Your task to perform on an android device: snooze an email in the gmail app Image 0: 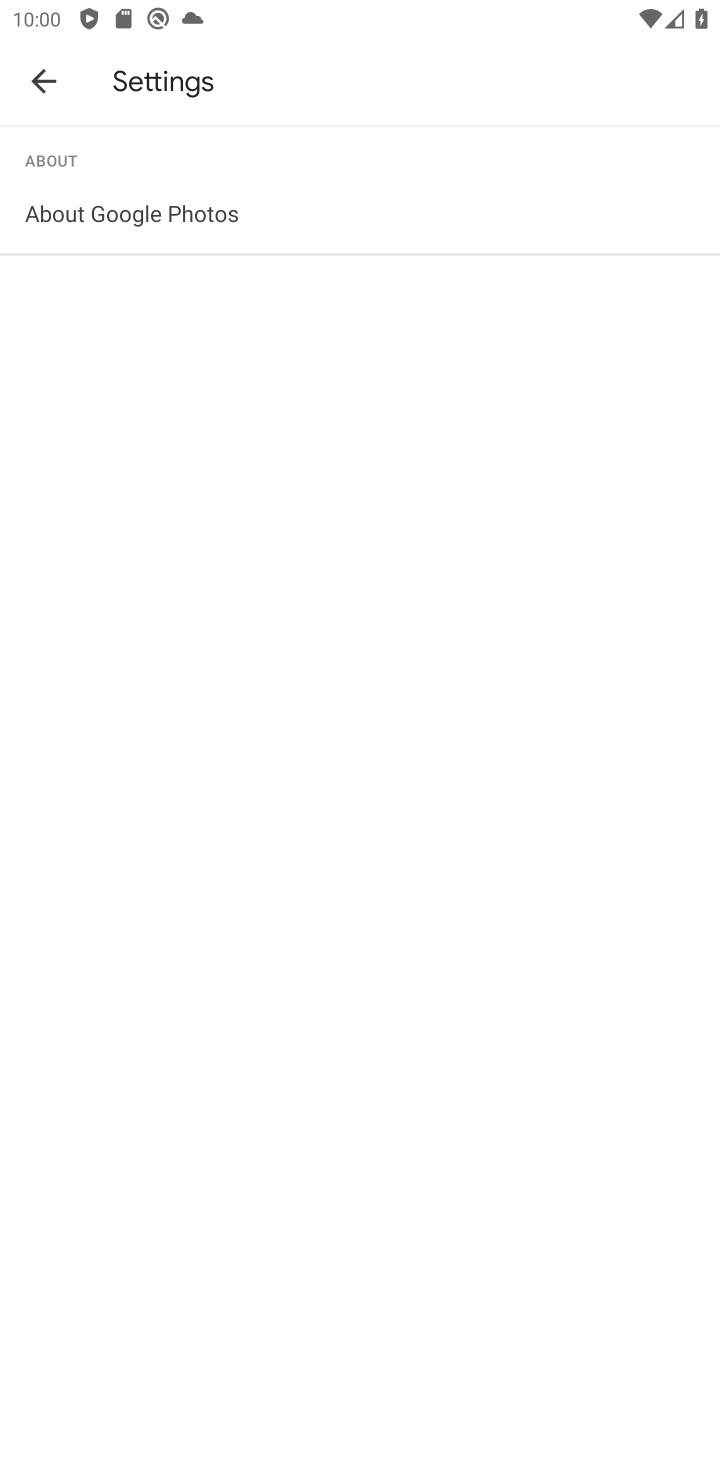
Step 0: press home button
Your task to perform on an android device: snooze an email in the gmail app Image 1: 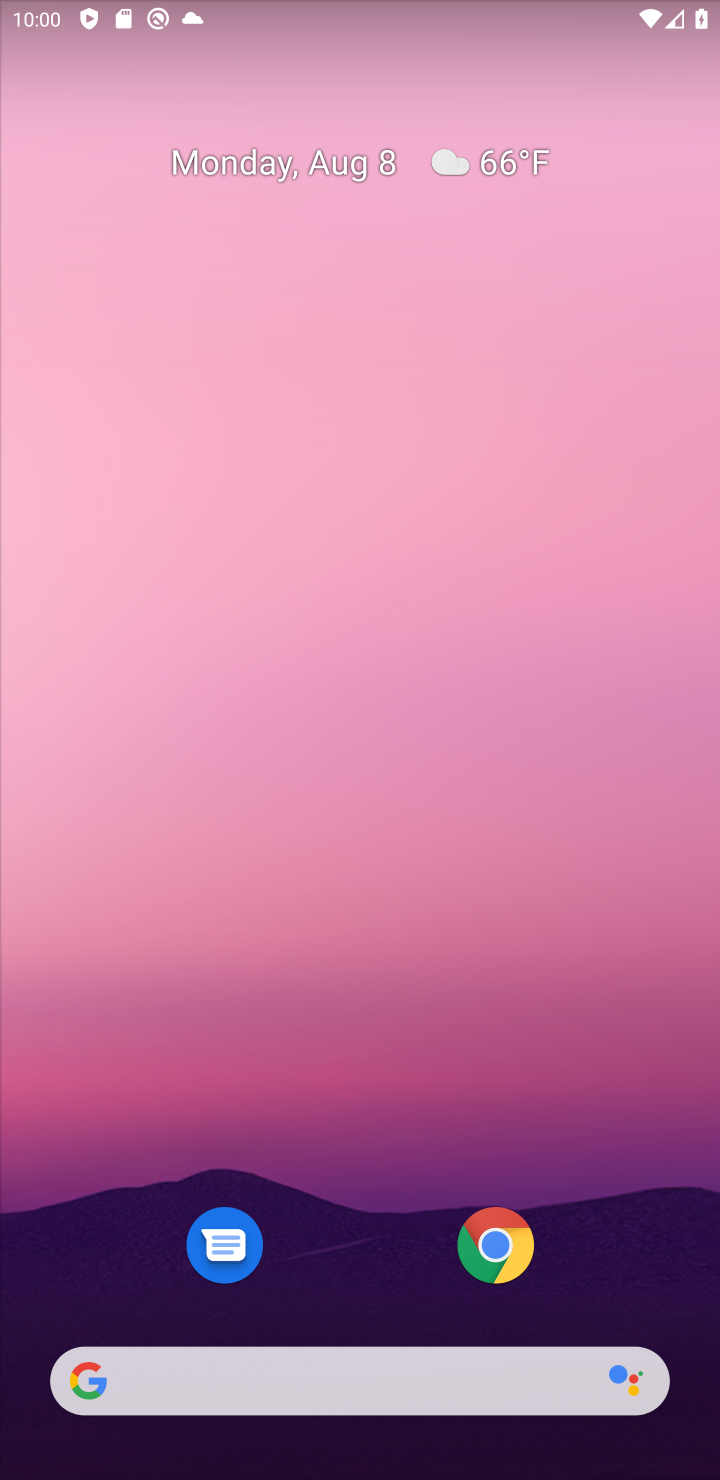
Step 1: drag from (376, 1109) to (271, 108)
Your task to perform on an android device: snooze an email in the gmail app Image 2: 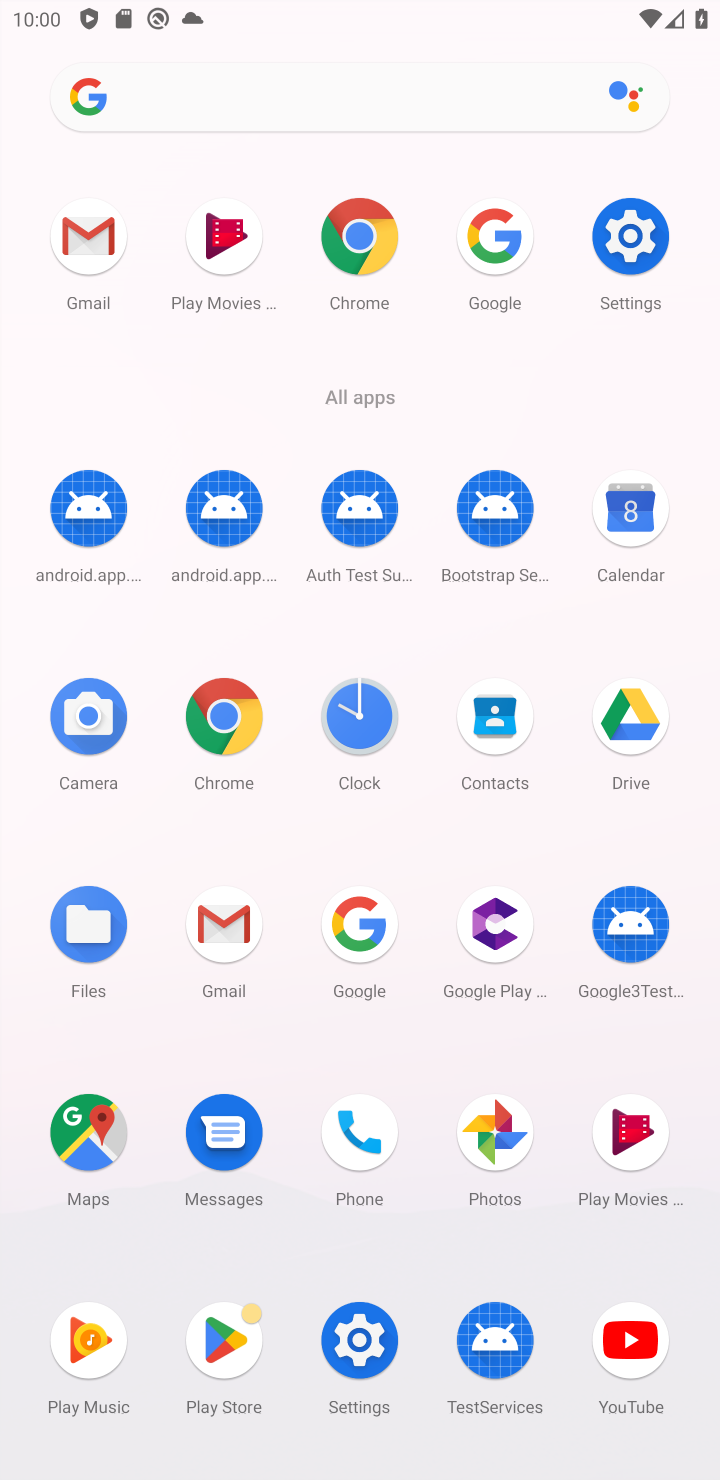
Step 2: click (95, 228)
Your task to perform on an android device: snooze an email in the gmail app Image 3: 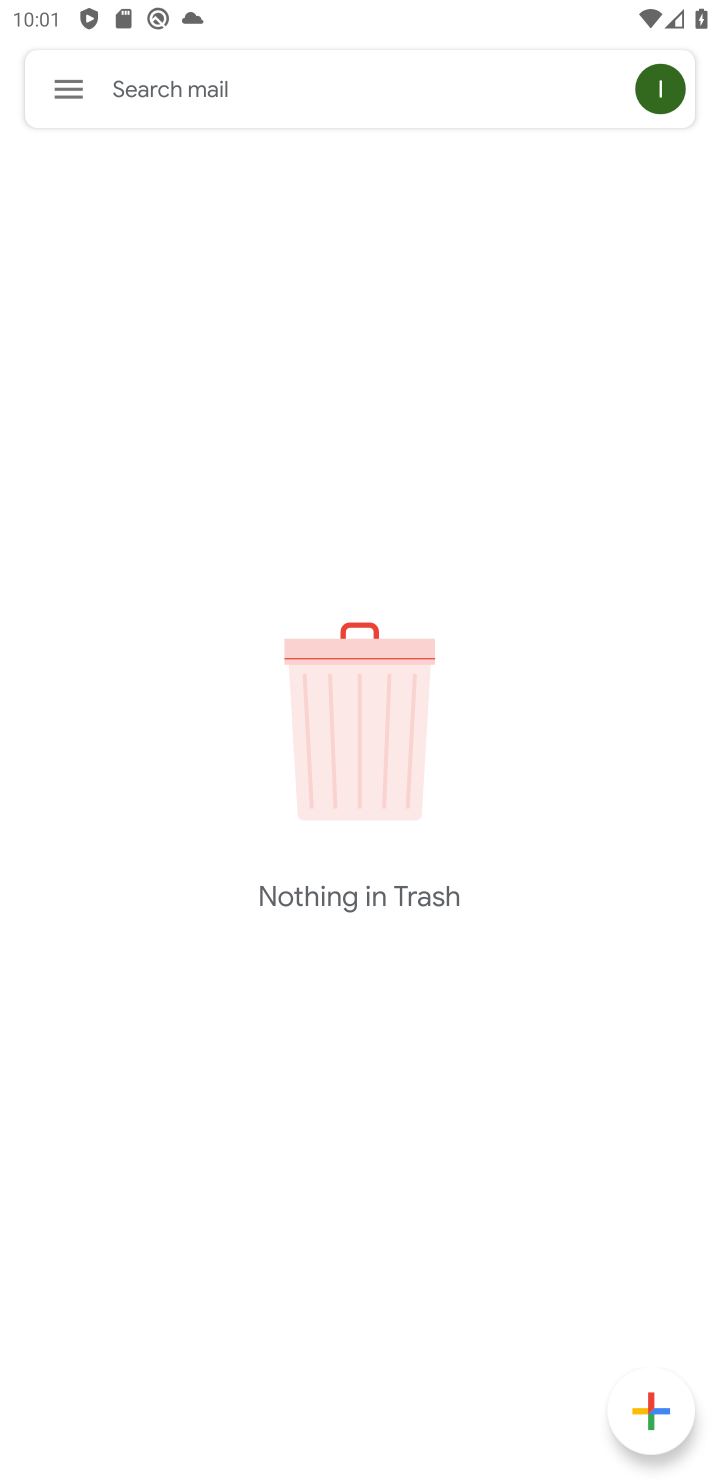
Step 3: click (63, 95)
Your task to perform on an android device: snooze an email in the gmail app Image 4: 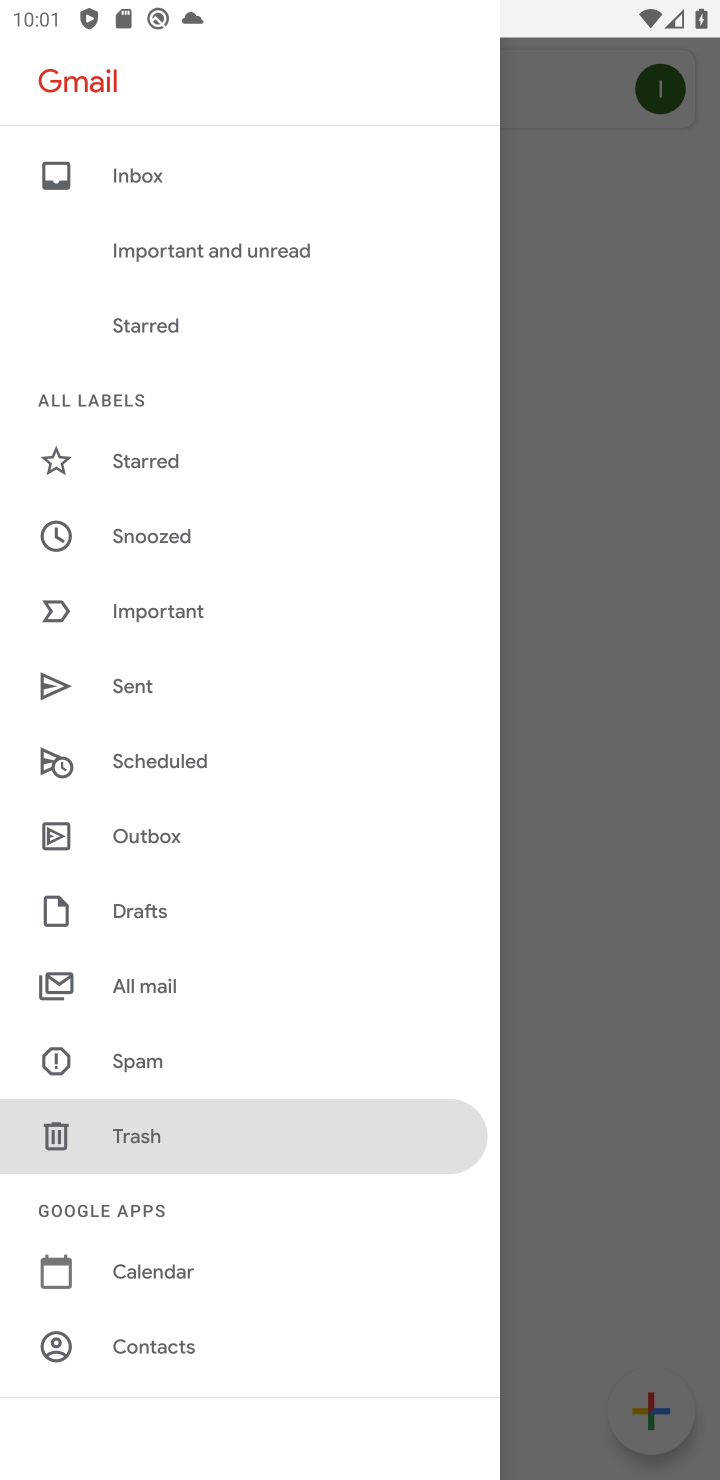
Step 4: click (140, 982)
Your task to perform on an android device: snooze an email in the gmail app Image 5: 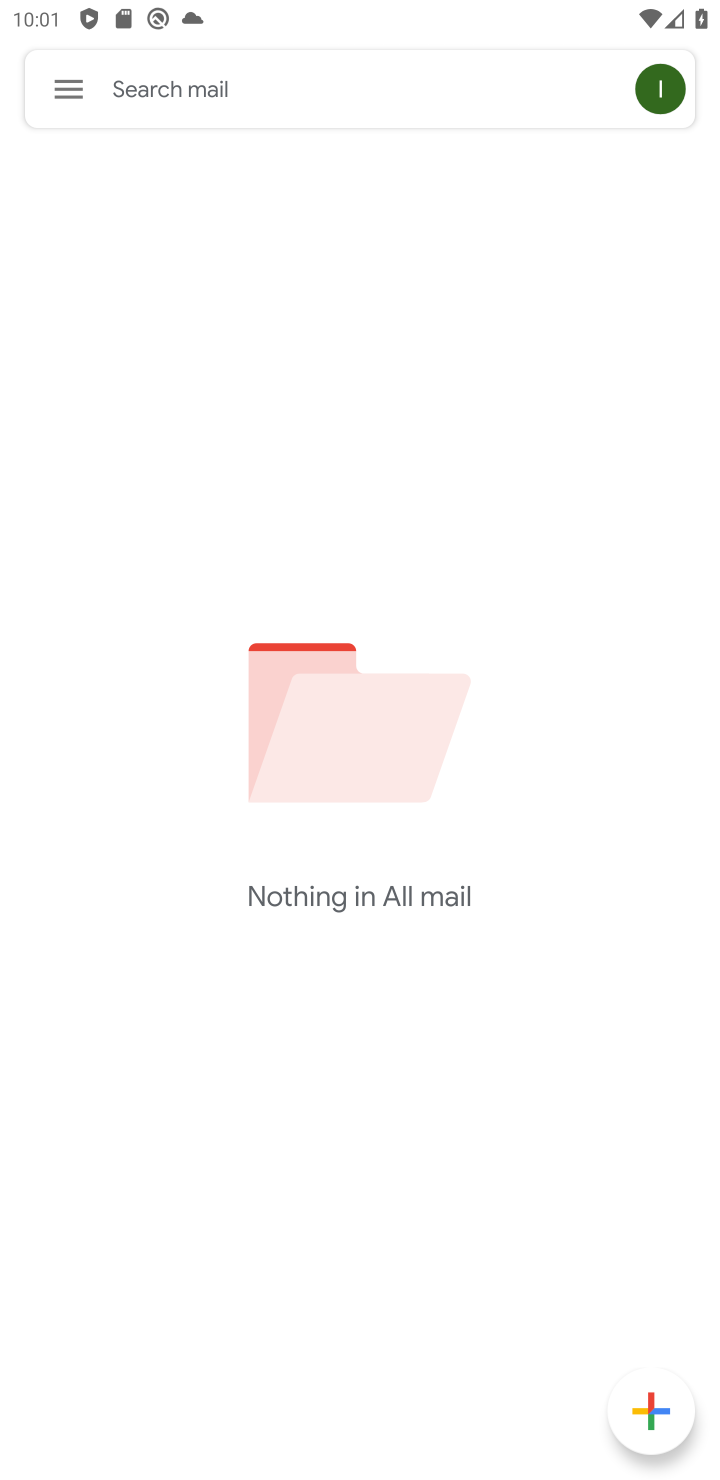
Step 5: task complete